Your task to perform on an android device: Go to notification settings Image 0: 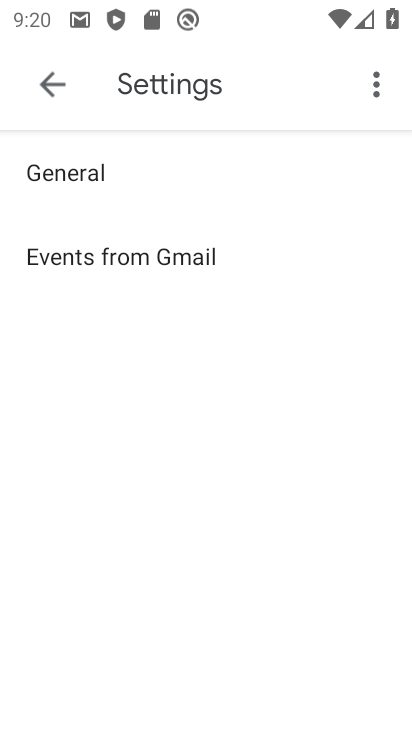
Step 0: click (205, 169)
Your task to perform on an android device: Go to notification settings Image 1: 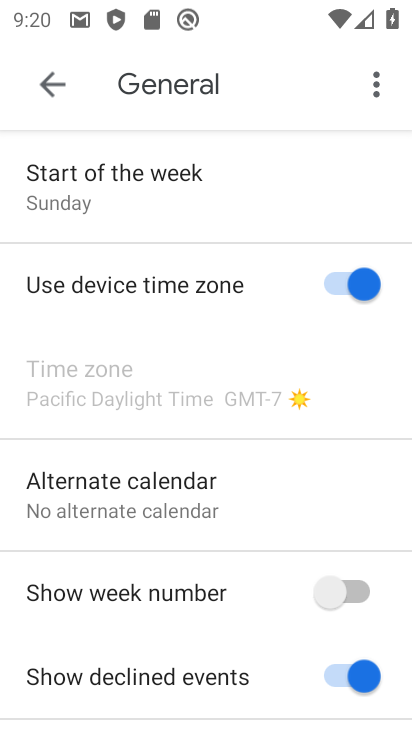
Step 1: click (56, 89)
Your task to perform on an android device: Go to notification settings Image 2: 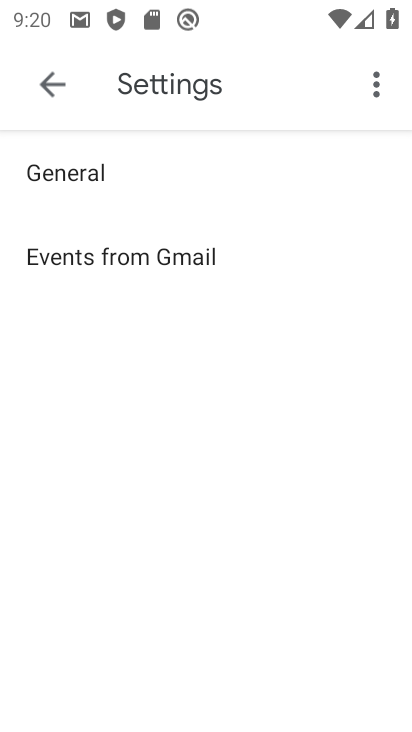
Step 2: click (56, 89)
Your task to perform on an android device: Go to notification settings Image 3: 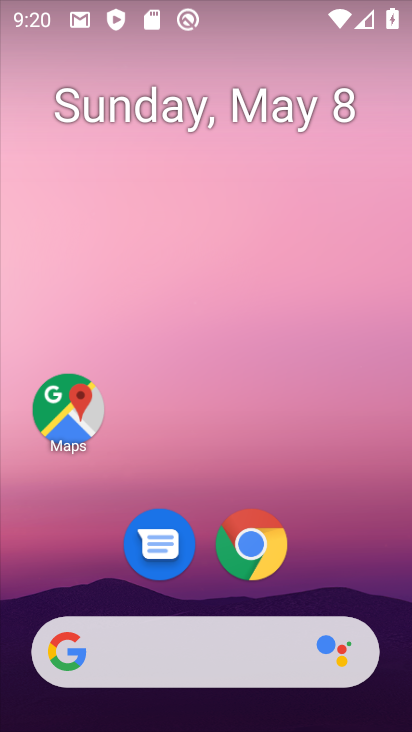
Step 3: drag from (357, 561) to (208, 14)
Your task to perform on an android device: Go to notification settings Image 4: 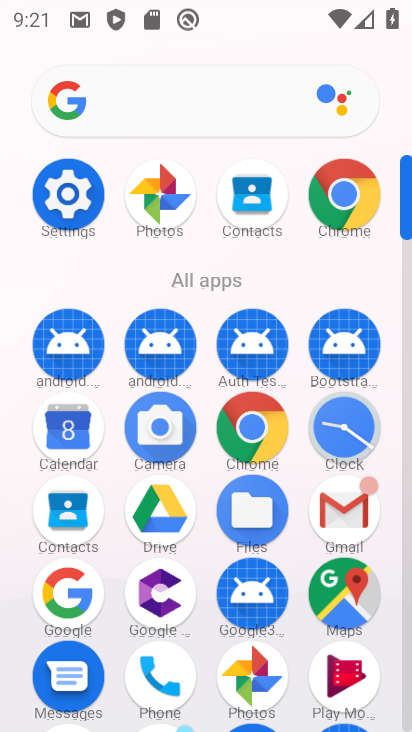
Step 4: click (84, 213)
Your task to perform on an android device: Go to notification settings Image 5: 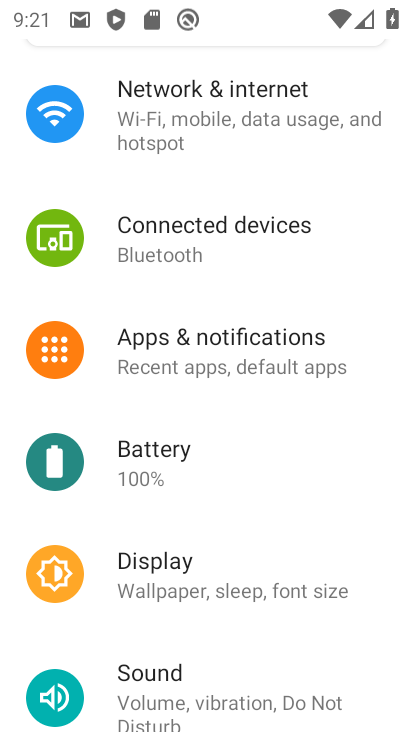
Step 5: click (289, 375)
Your task to perform on an android device: Go to notification settings Image 6: 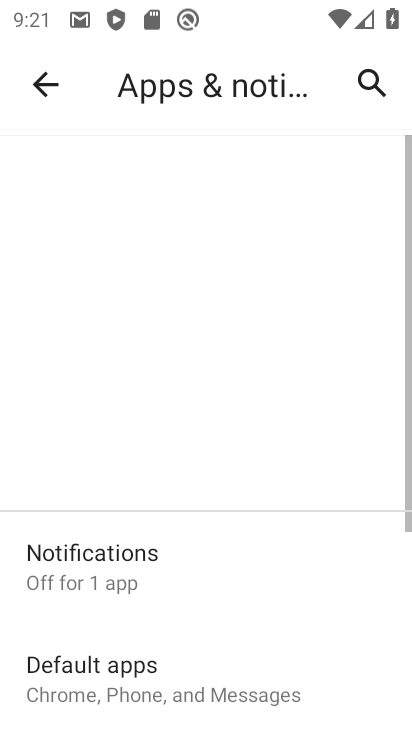
Step 6: task complete